Your task to perform on an android device: open a bookmark in the chrome app Image 0: 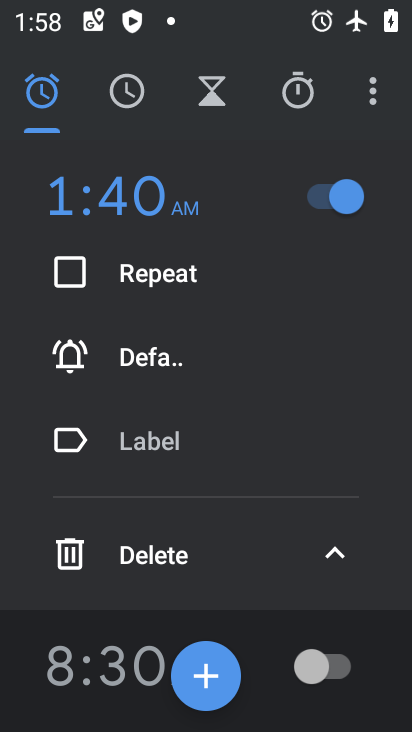
Step 0: press home button
Your task to perform on an android device: open a bookmark in the chrome app Image 1: 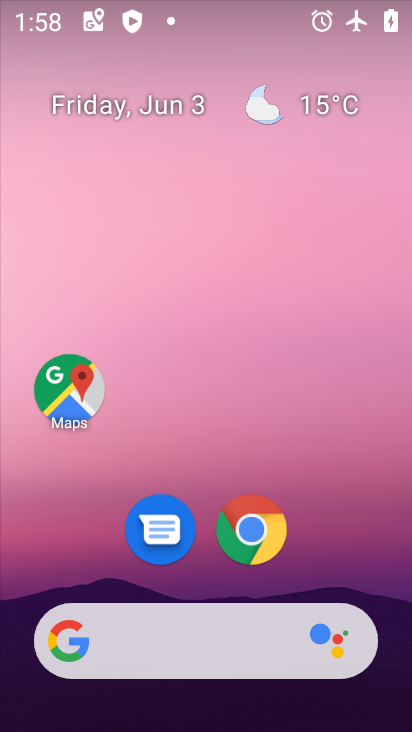
Step 1: drag from (368, 551) to (369, 149)
Your task to perform on an android device: open a bookmark in the chrome app Image 2: 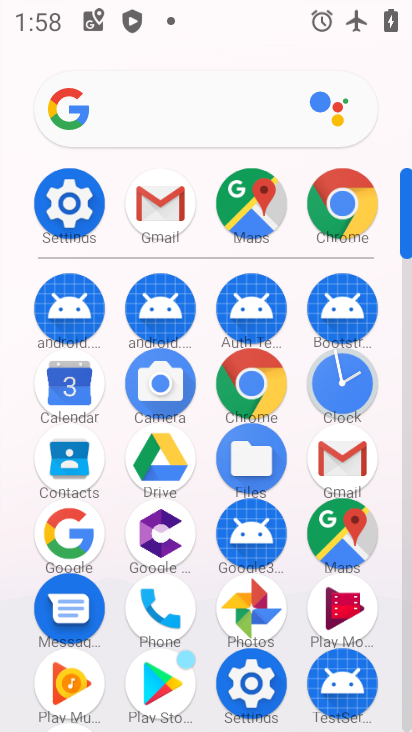
Step 2: click (257, 388)
Your task to perform on an android device: open a bookmark in the chrome app Image 3: 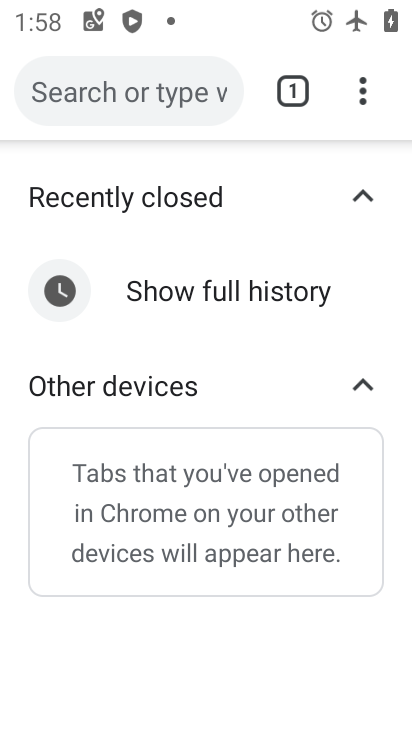
Step 3: click (364, 103)
Your task to perform on an android device: open a bookmark in the chrome app Image 4: 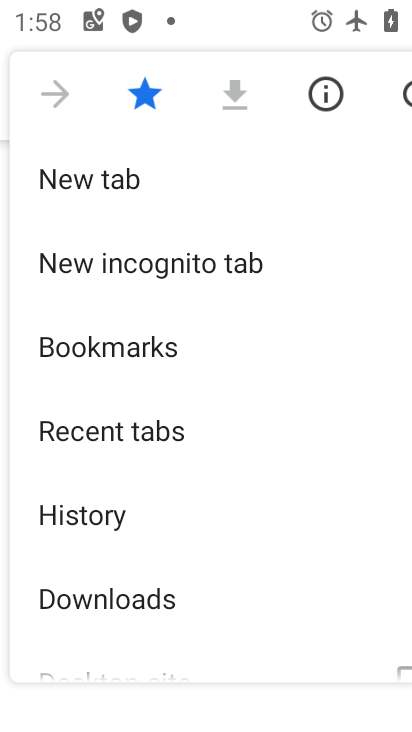
Step 4: drag from (301, 478) to (306, 343)
Your task to perform on an android device: open a bookmark in the chrome app Image 5: 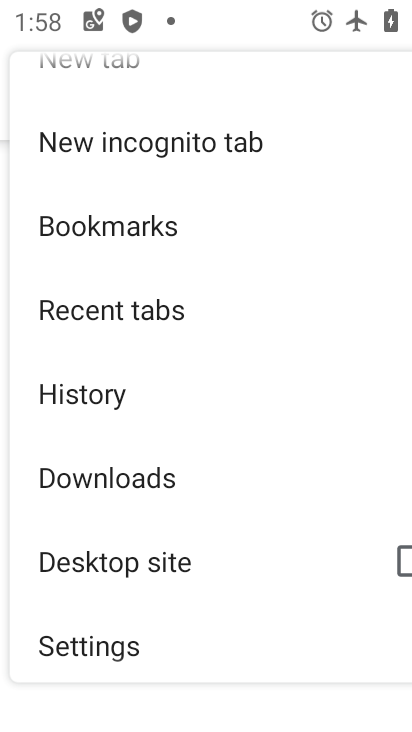
Step 5: drag from (310, 509) to (312, 293)
Your task to perform on an android device: open a bookmark in the chrome app Image 6: 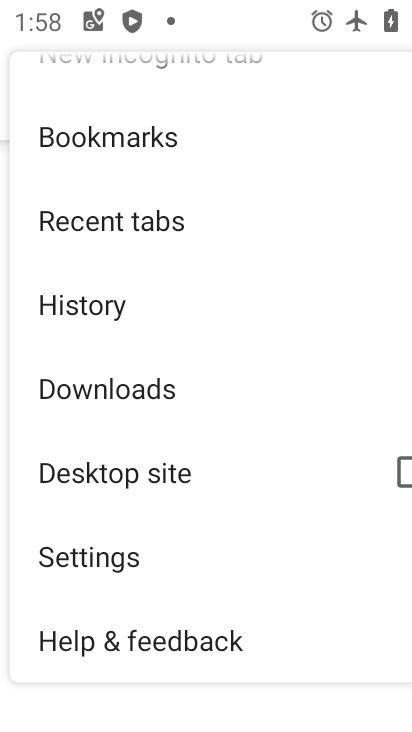
Step 6: drag from (309, 235) to (311, 342)
Your task to perform on an android device: open a bookmark in the chrome app Image 7: 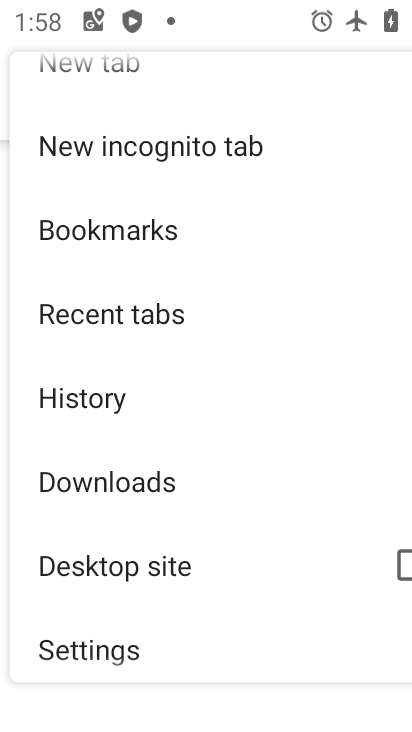
Step 7: drag from (311, 220) to (320, 450)
Your task to perform on an android device: open a bookmark in the chrome app Image 8: 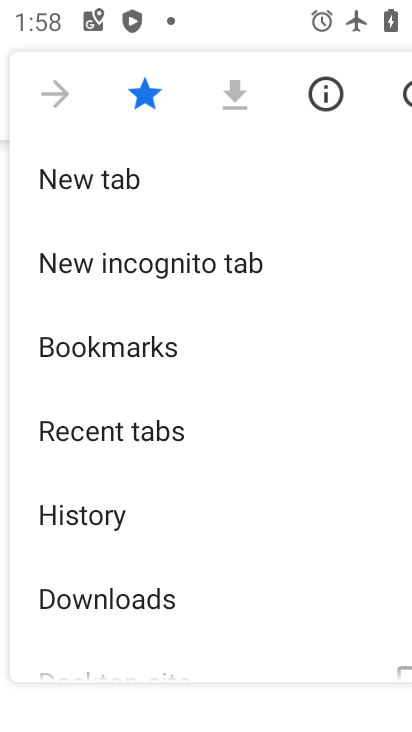
Step 8: click (186, 365)
Your task to perform on an android device: open a bookmark in the chrome app Image 9: 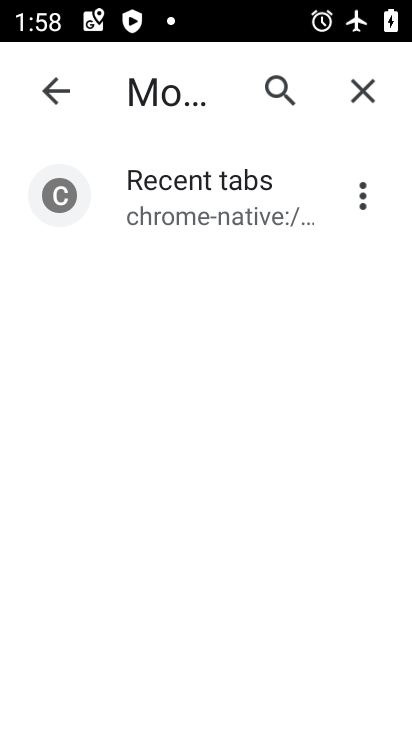
Step 9: click (228, 184)
Your task to perform on an android device: open a bookmark in the chrome app Image 10: 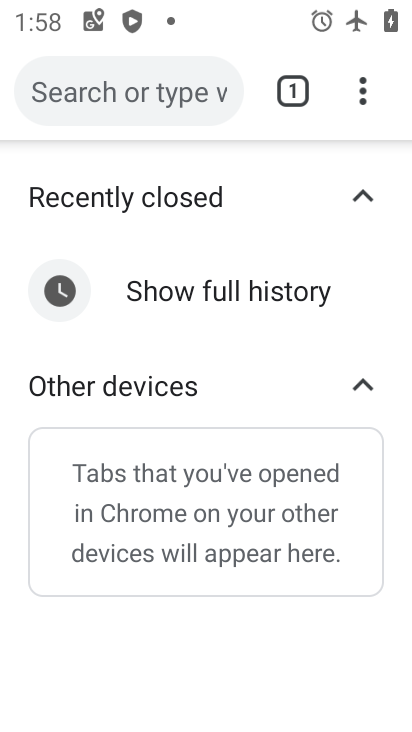
Step 10: task complete